Your task to perform on an android device: Turn on the flashlight Image 0: 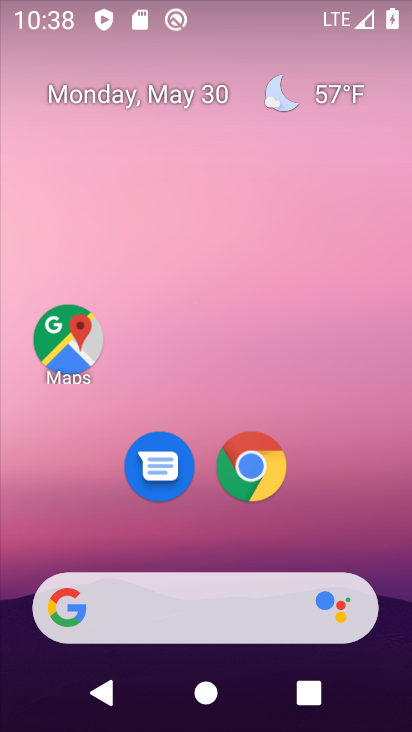
Step 0: press home button
Your task to perform on an android device: Turn on the flashlight Image 1: 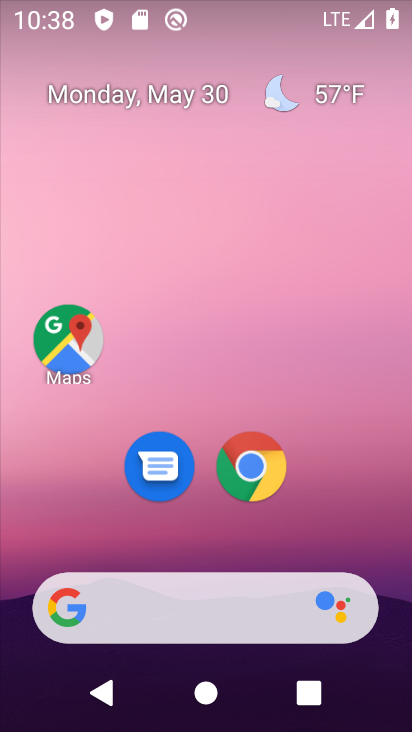
Step 1: task complete